Your task to perform on an android device: toggle javascript in the chrome app Image 0: 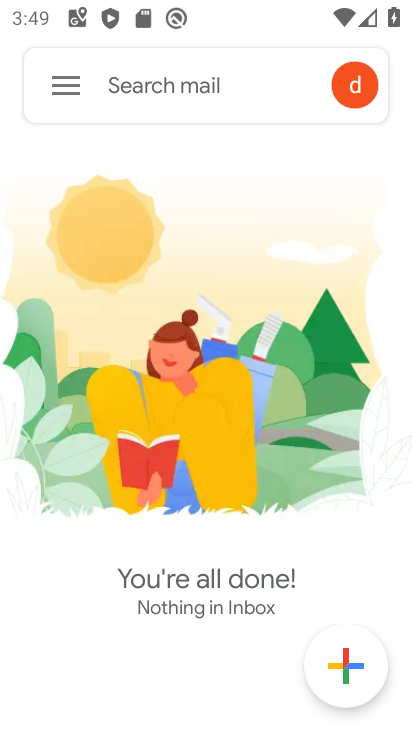
Step 0: press home button
Your task to perform on an android device: toggle javascript in the chrome app Image 1: 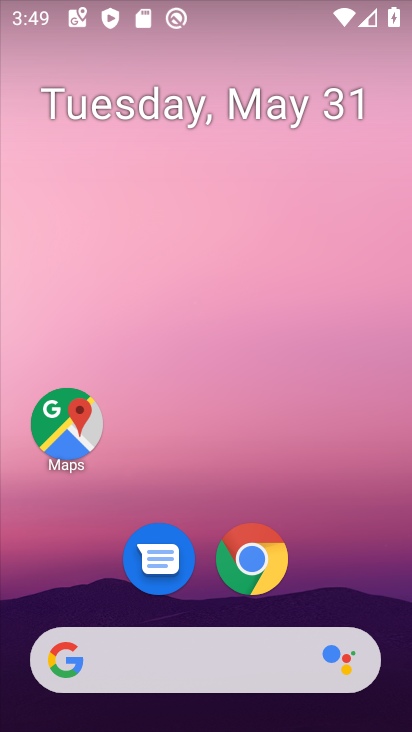
Step 1: click (249, 566)
Your task to perform on an android device: toggle javascript in the chrome app Image 2: 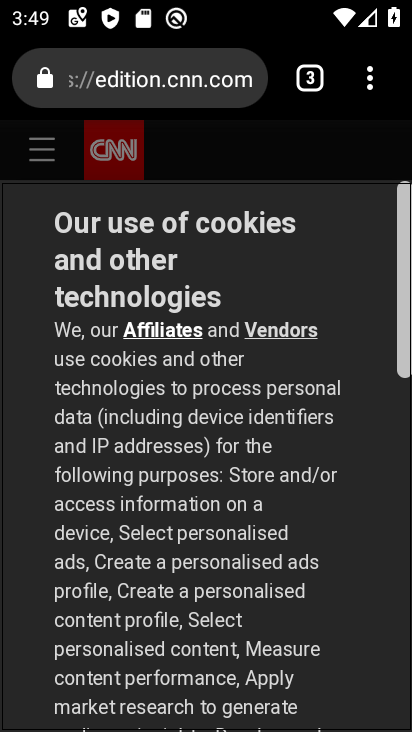
Step 2: click (371, 85)
Your task to perform on an android device: toggle javascript in the chrome app Image 3: 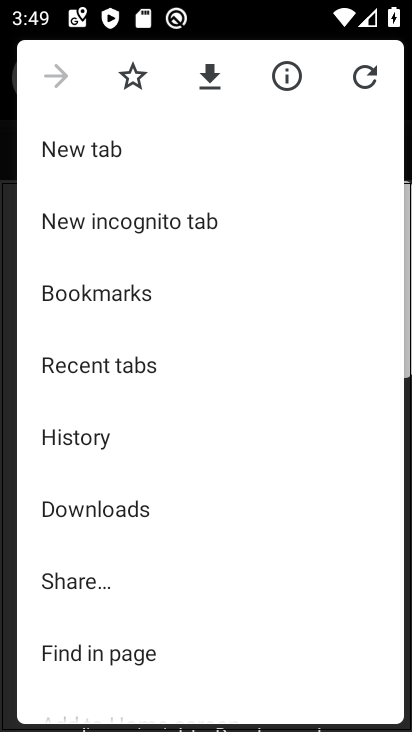
Step 3: drag from (90, 633) to (91, 568)
Your task to perform on an android device: toggle javascript in the chrome app Image 4: 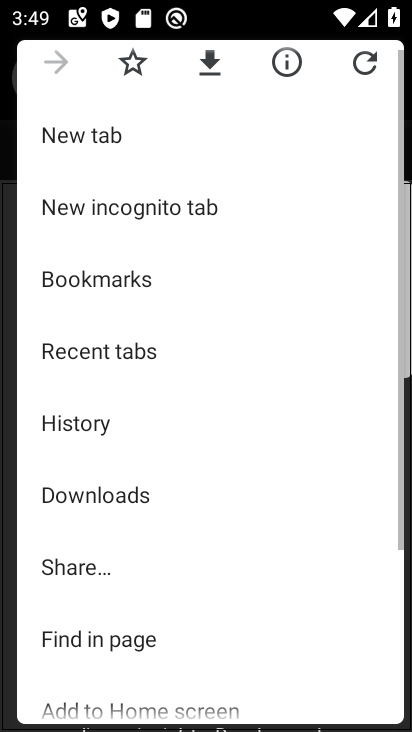
Step 4: drag from (92, 419) to (93, 250)
Your task to perform on an android device: toggle javascript in the chrome app Image 5: 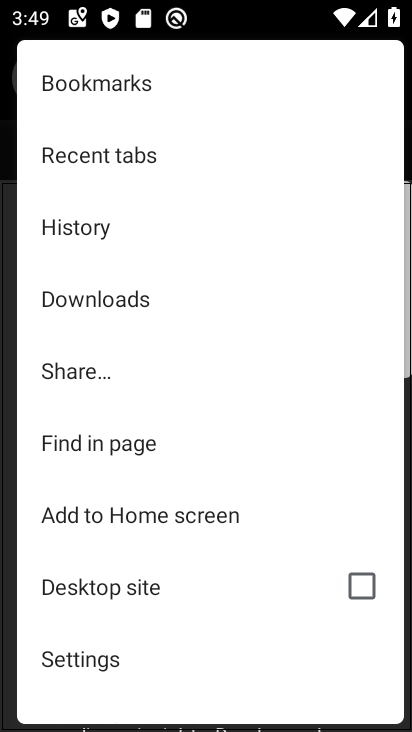
Step 5: click (104, 658)
Your task to perform on an android device: toggle javascript in the chrome app Image 6: 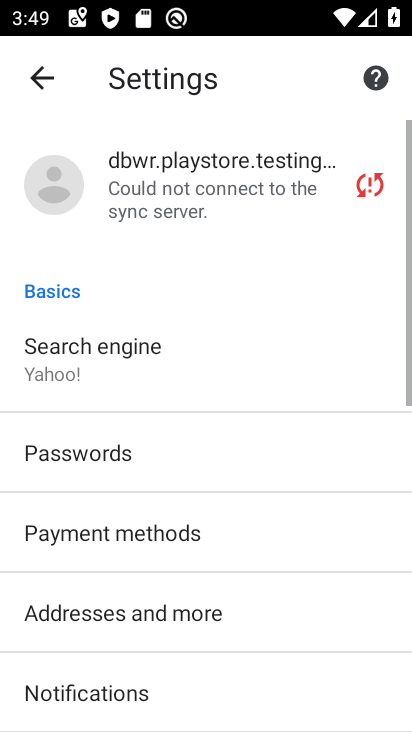
Step 6: drag from (189, 691) to (194, 327)
Your task to perform on an android device: toggle javascript in the chrome app Image 7: 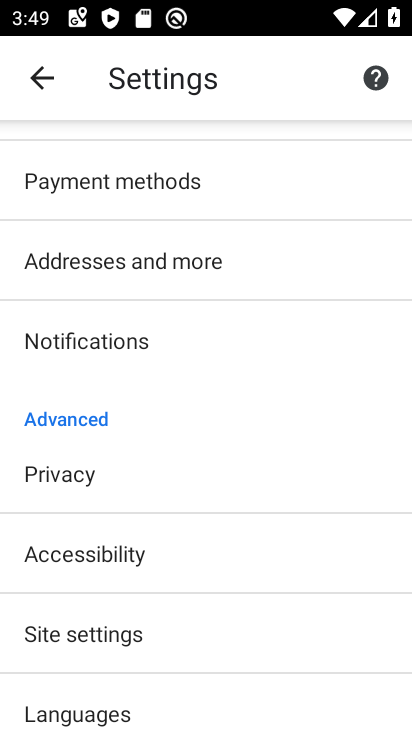
Step 7: drag from (150, 689) to (155, 295)
Your task to perform on an android device: toggle javascript in the chrome app Image 8: 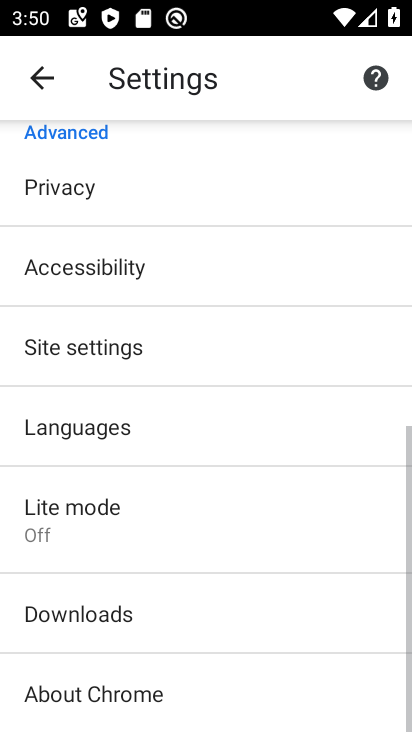
Step 8: click (86, 347)
Your task to perform on an android device: toggle javascript in the chrome app Image 9: 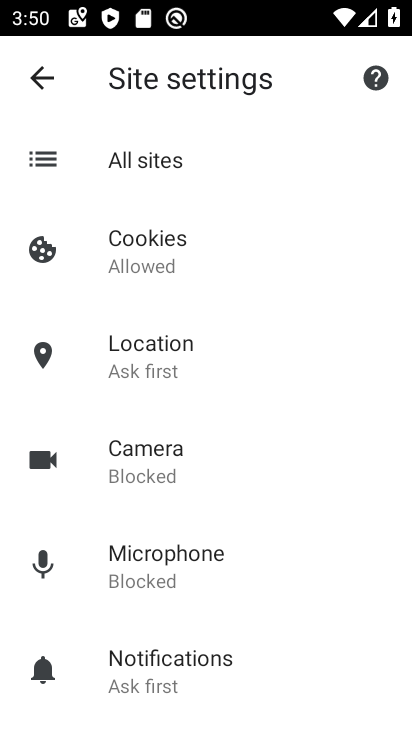
Step 9: drag from (182, 677) to (187, 313)
Your task to perform on an android device: toggle javascript in the chrome app Image 10: 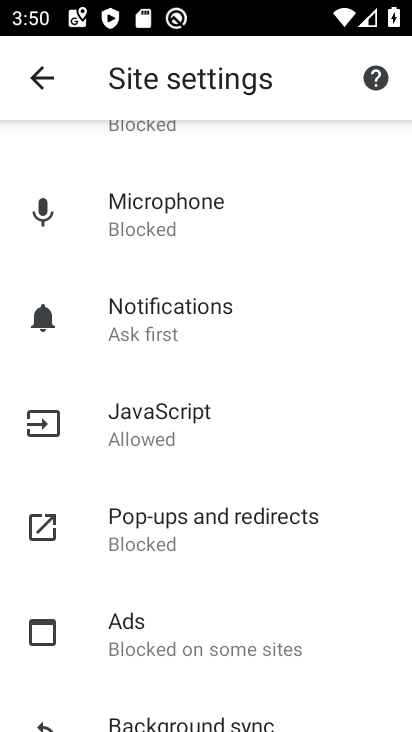
Step 10: click (158, 418)
Your task to perform on an android device: toggle javascript in the chrome app Image 11: 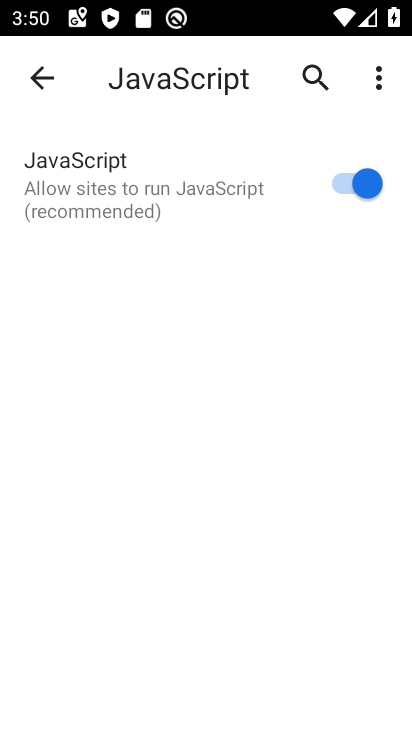
Step 11: click (360, 178)
Your task to perform on an android device: toggle javascript in the chrome app Image 12: 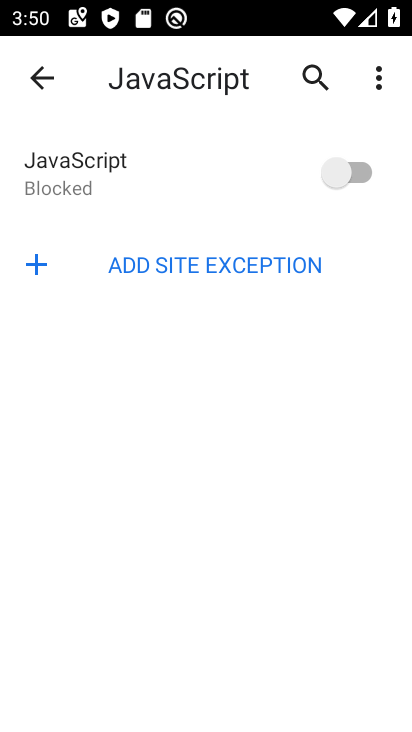
Step 12: task complete